Your task to perform on an android device: turn on notifications settings in the gmail app Image 0: 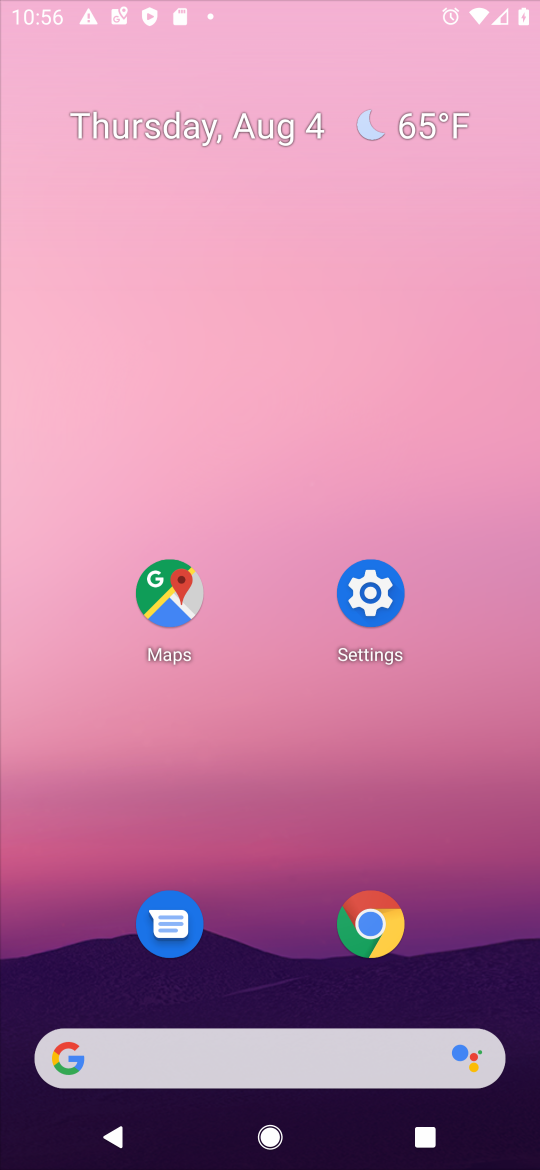
Step 0: press home button
Your task to perform on an android device: turn on notifications settings in the gmail app Image 1: 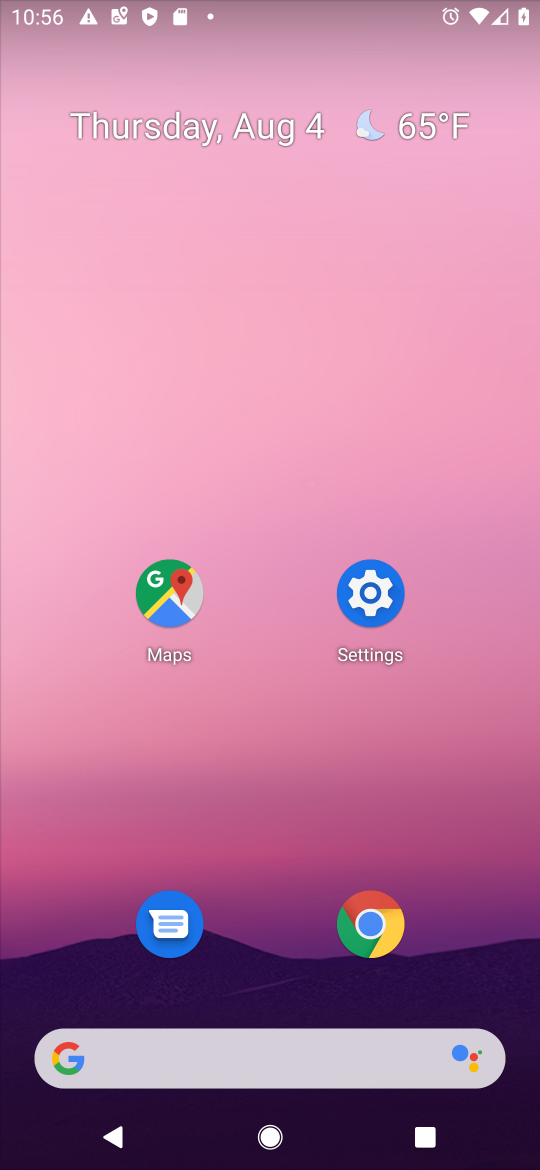
Step 1: drag from (243, 948) to (425, 235)
Your task to perform on an android device: turn on notifications settings in the gmail app Image 2: 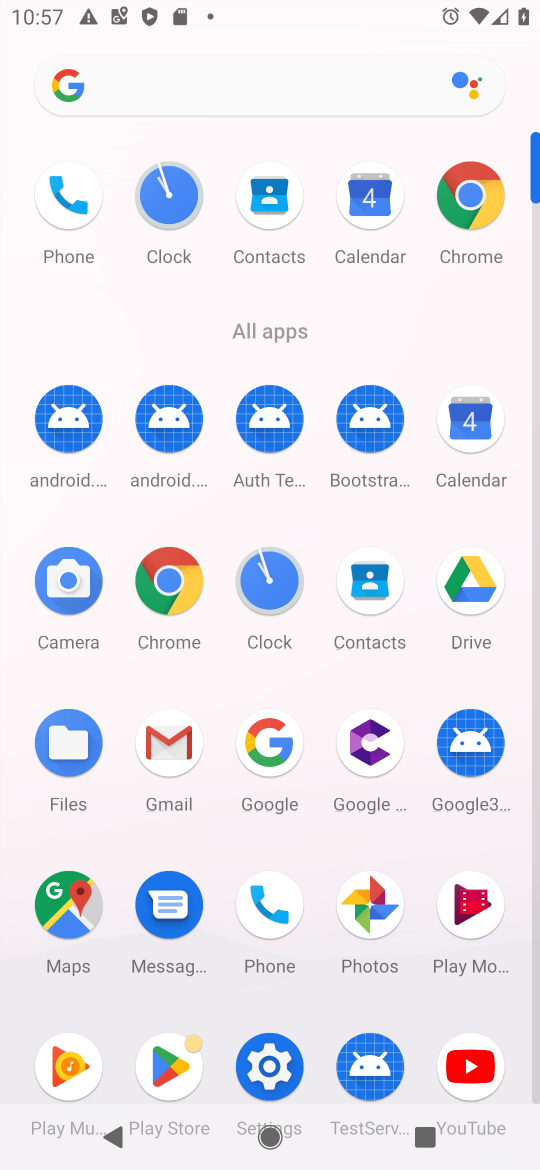
Step 2: click (167, 741)
Your task to perform on an android device: turn on notifications settings in the gmail app Image 3: 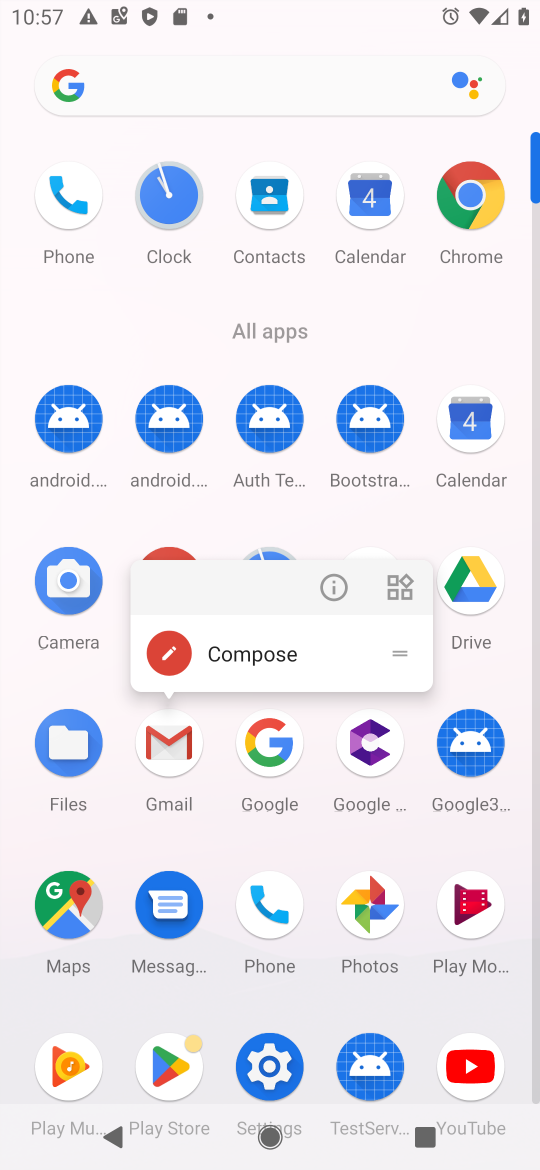
Step 3: click (167, 741)
Your task to perform on an android device: turn on notifications settings in the gmail app Image 4: 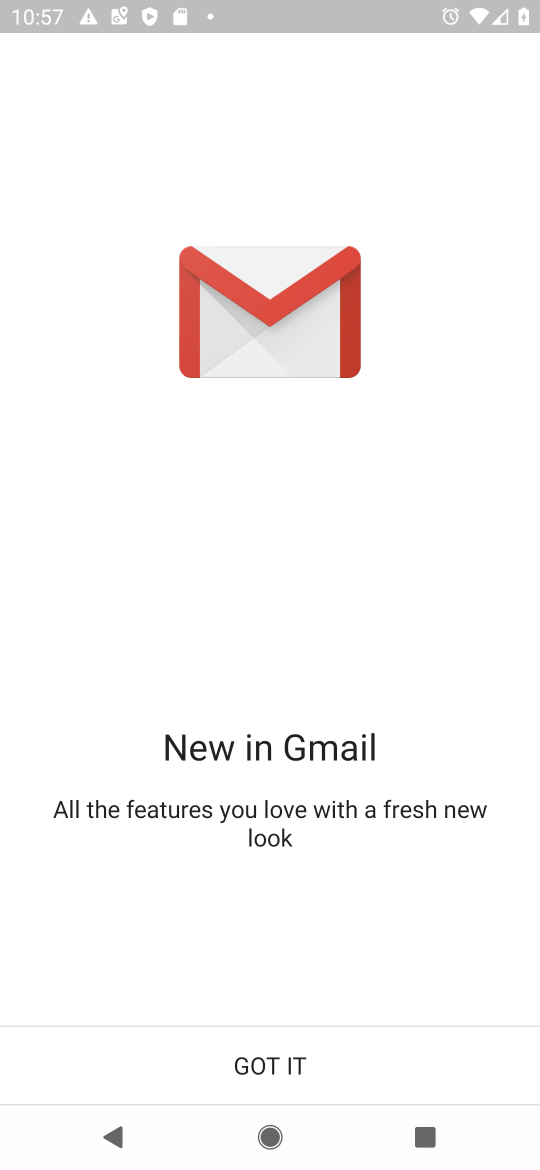
Step 4: click (276, 1065)
Your task to perform on an android device: turn on notifications settings in the gmail app Image 5: 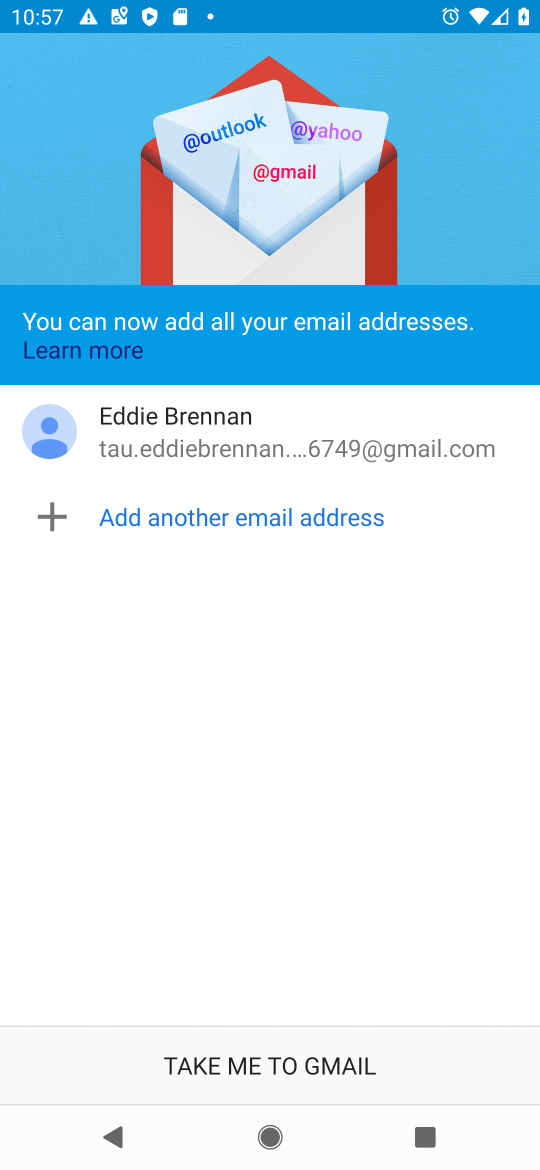
Step 5: click (284, 1053)
Your task to perform on an android device: turn on notifications settings in the gmail app Image 6: 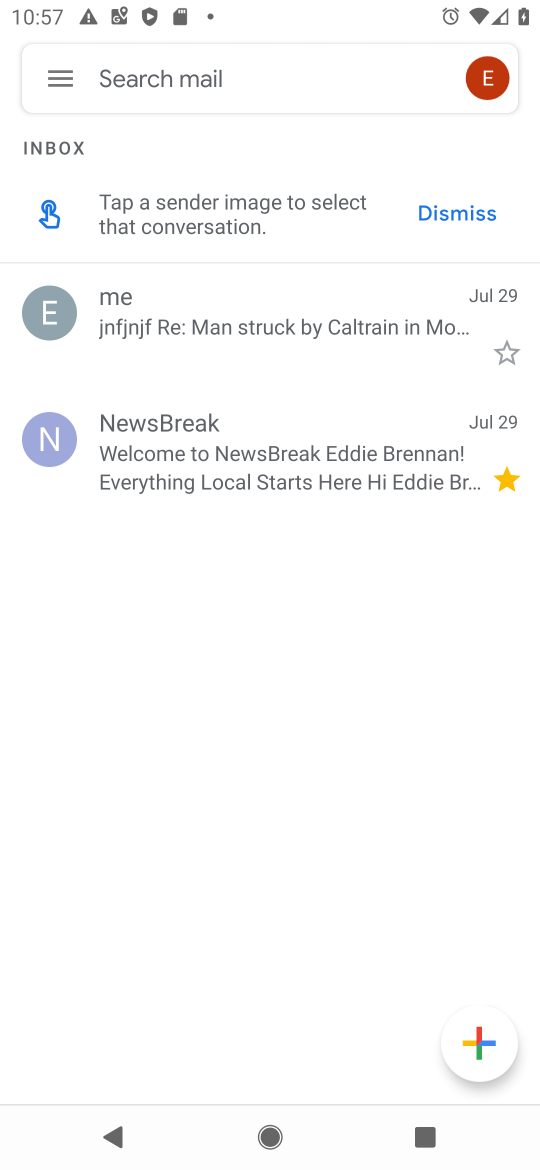
Step 6: click (62, 78)
Your task to perform on an android device: turn on notifications settings in the gmail app Image 7: 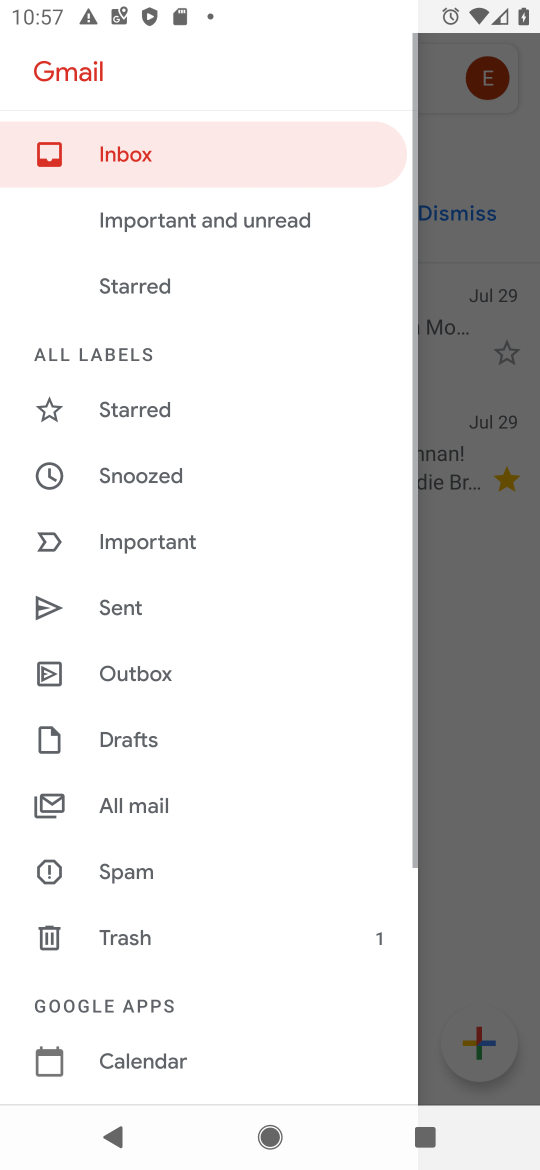
Step 7: drag from (232, 1001) to (247, 240)
Your task to perform on an android device: turn on notifications settings in the gmail app Image 8: 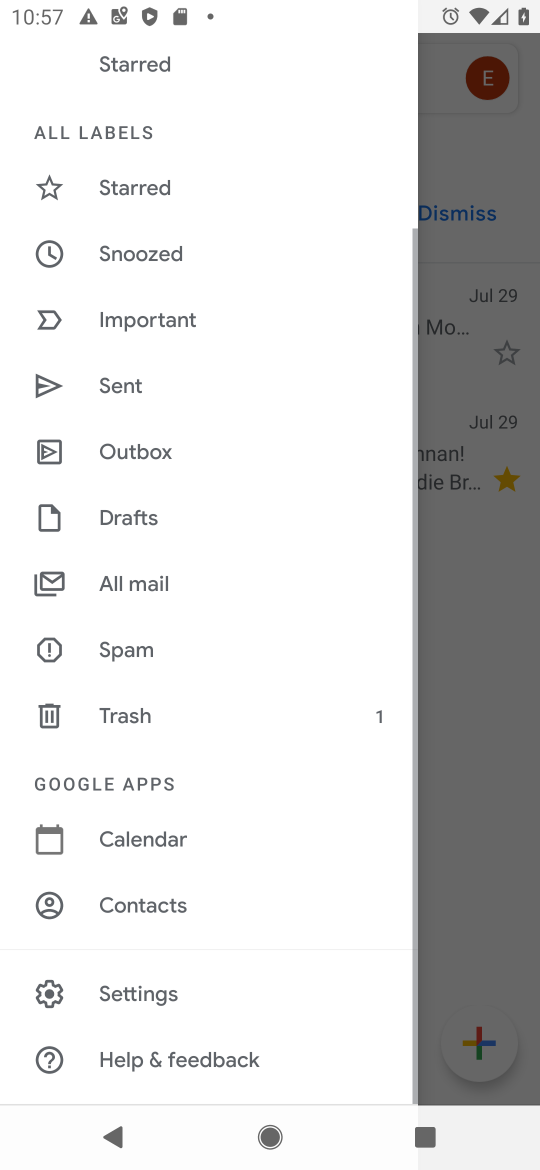
Step 8: click (139, 1002)
Your task to perform on an android device: turn on notifications settings in the gmail app Image 9: 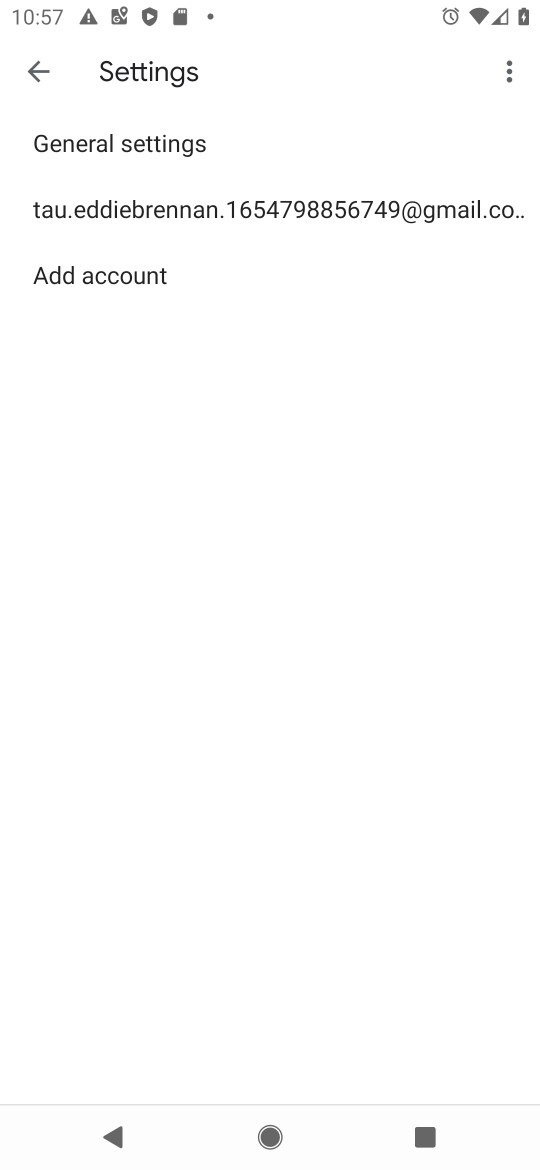
Step 9: click (221, 205)
Your task to perform on an android device: turn on notifications settings in the gmail app Image 10: 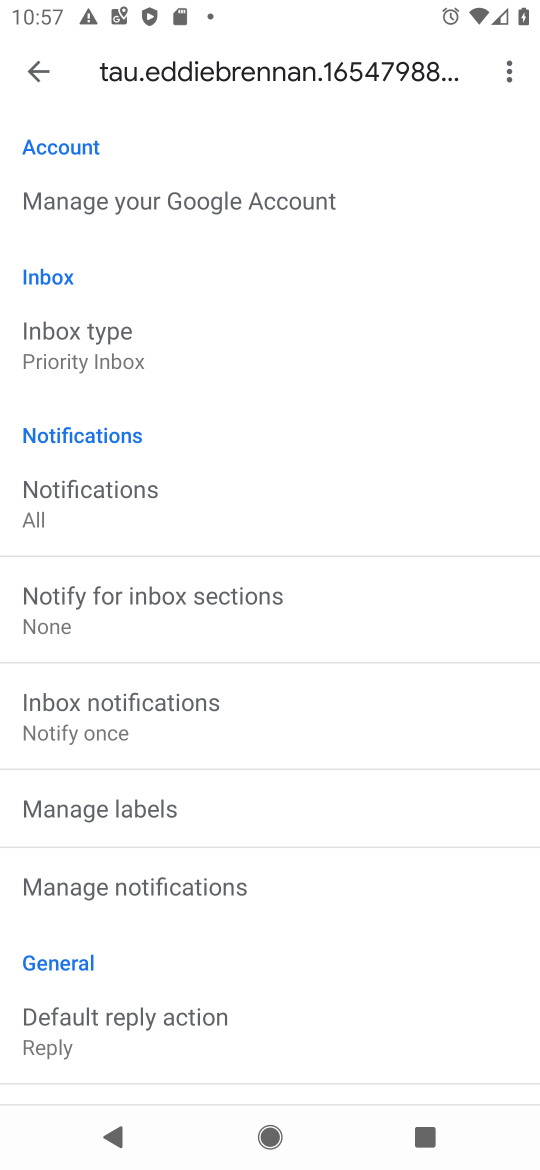
Step 10: click (96, 501)
Your task to perform on an android device: turn on notifications settings in the gmail app Image 11: 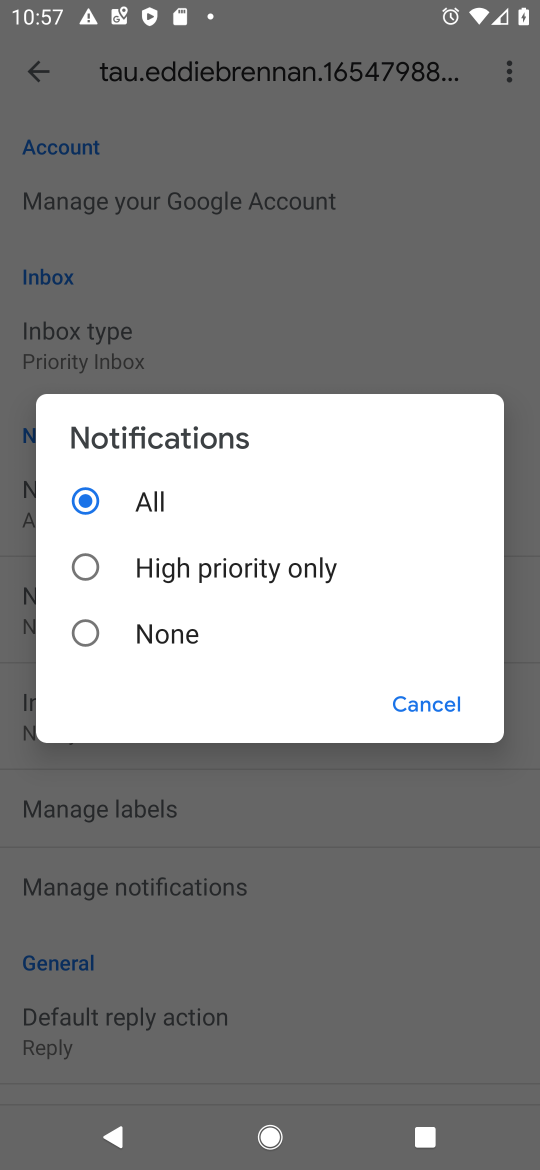
Step 11: task complete